Your task to perform on an android device: turn on bluetooth scan Image 0: 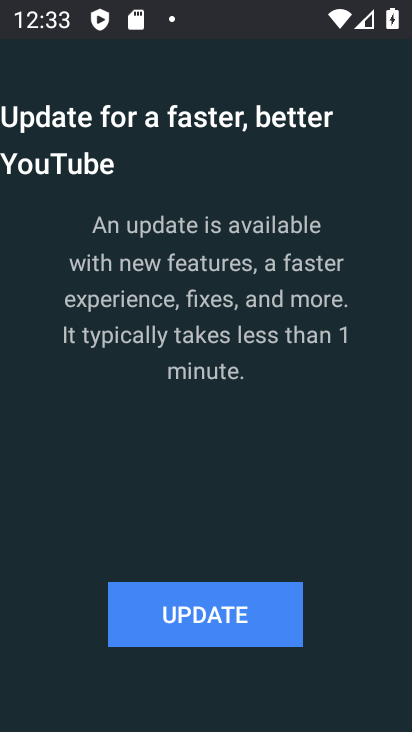
Step 0: press back button
Your task to perform on an android device: turn on bluetooth scan Image 1: 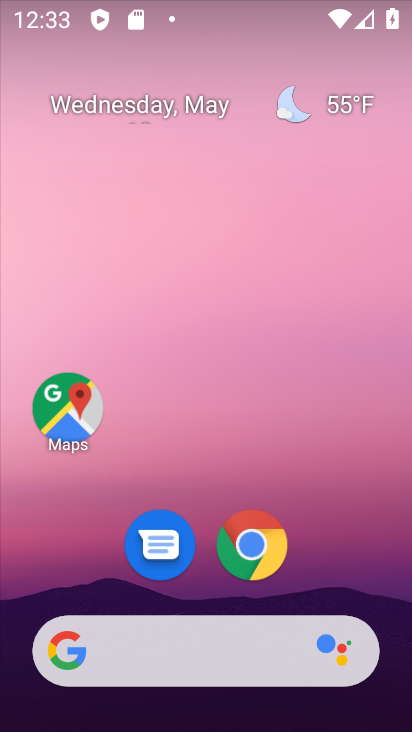
Step 1: drag from (273, 671) to (215, 67)
Your task to perform on an android device: turn on bluetooth scan Image 2: 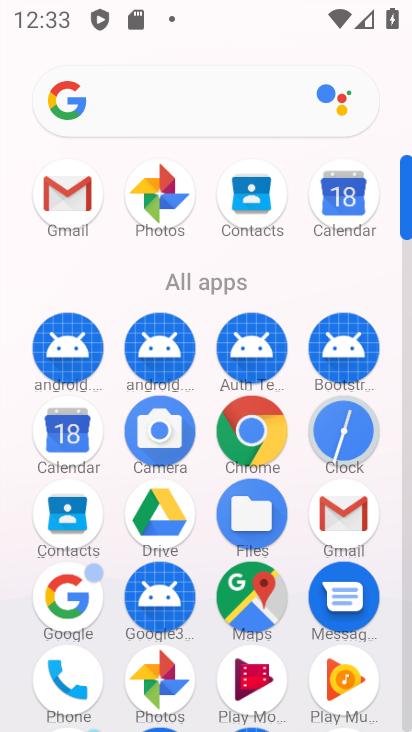
Step 2: drag from (208, 296) to (196, 89)
Your task to perform on an android device: turn on bluetooth scan Image 3: 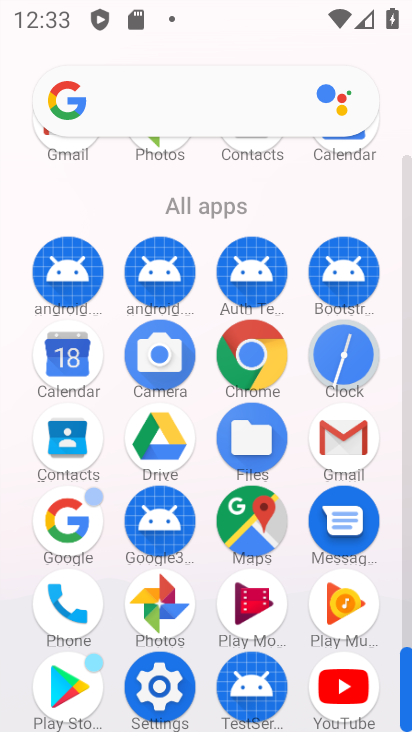
Step 3: click (172, 696)
Your task to perform on an android device: turn on bluetooth scan Image 4: 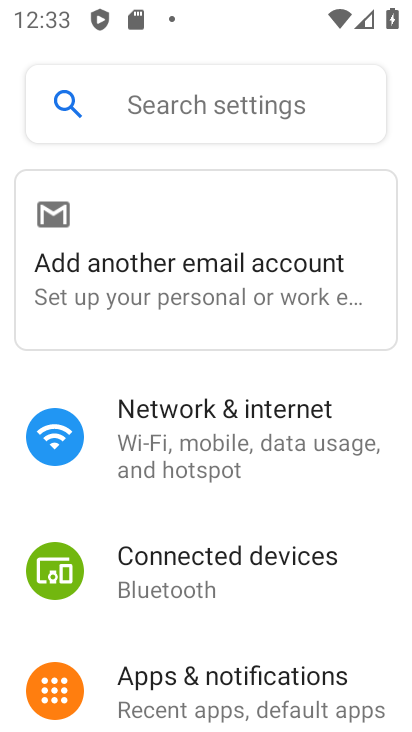
Step 4: drag from (246, 632) to (225, 303)
Your task to perform on an android device: turn on bluetooth scan Image 5: 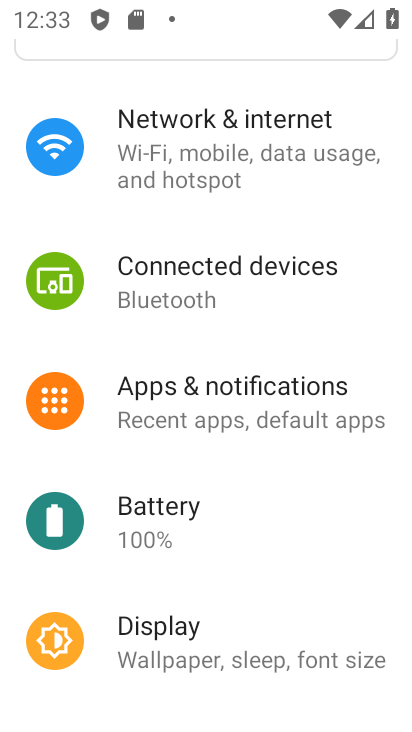
Step 5: drag from (288, 649) to (238, 244)
Your task to perform on an android device: turn on bluetooth scan Image 6: 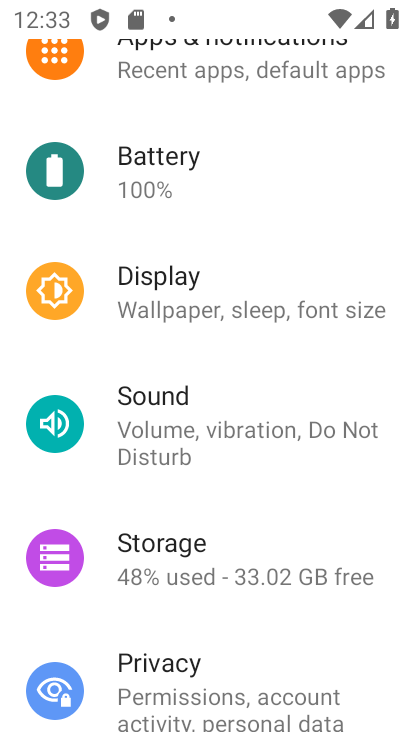
Step 6: drag from (227, 709) to (228, 432)
Your task to perform on an android device: turn on bluetooth scan Image 7: 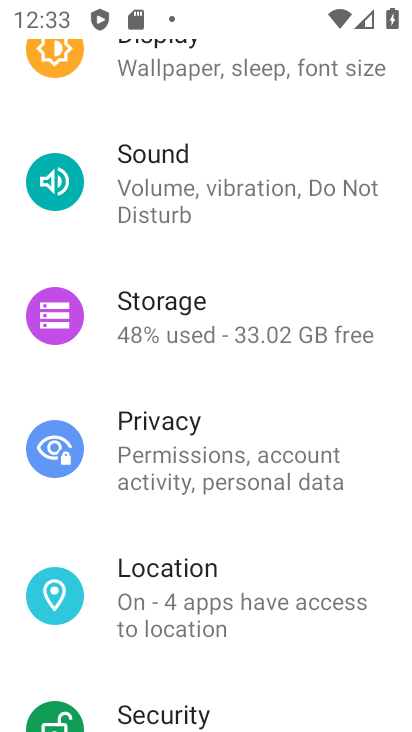
Step 7: click (211, 620)
Your task to perform on an android device: turn on bluetooth scan Image 8: 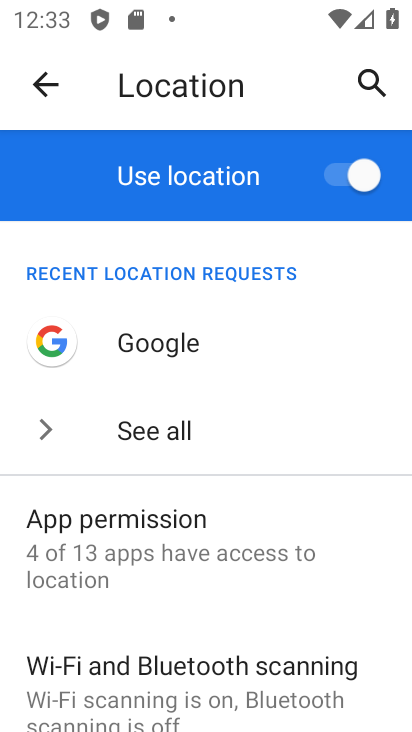
Step 8: click (145, 680)
Your task to perform on an android device: turn on bluetooth scan Image 9: 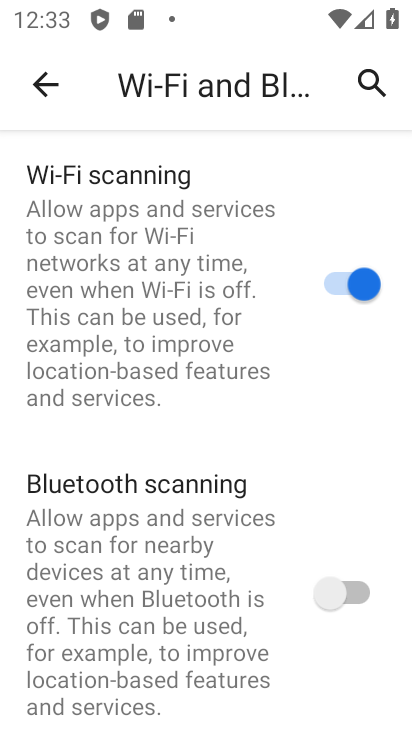
Step 9: click (338, 578)
Your task to perform on an android device: turn on bluetooth scan Image 10: 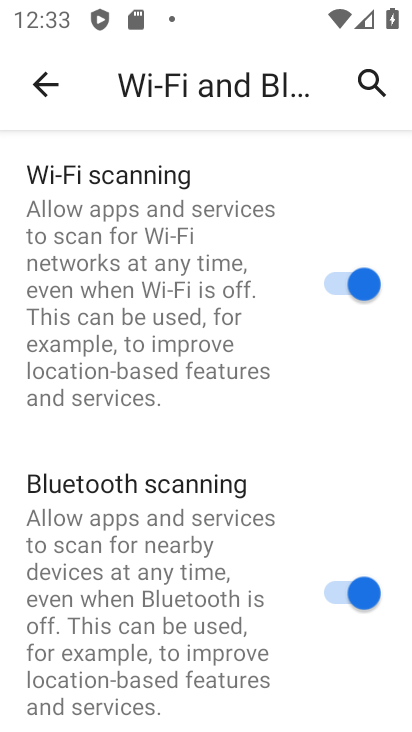
Step 10: task complete